Your task to perform on an android device: Search for pizza restaurants on Maps Image 0: 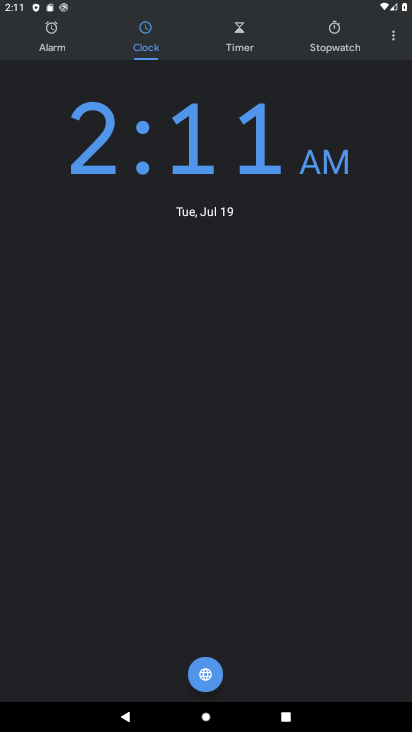
Step 0: press home button
Your task to perform on an android device: Search for pizza restaurants on Maps Image 1: 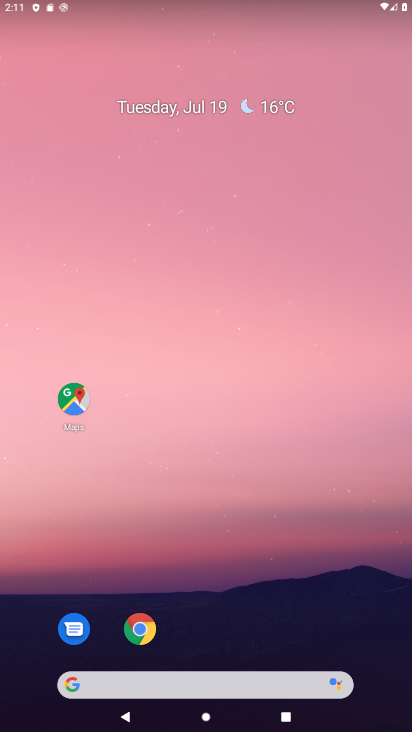
Step 1: drag from (186, 651) to (247, 293)
Your task to perform on an android device: Search for pizza restaurants on Maps Image 2: 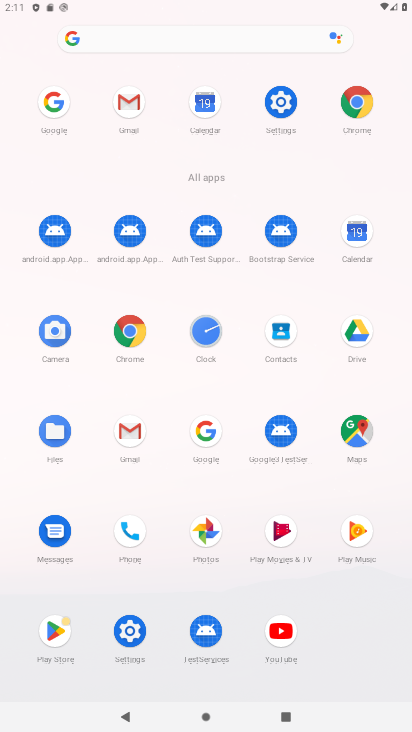
Step 2: click (348, 437)
Your task to perform on an android device: Search for pizza restaurants on Maps Image 3: 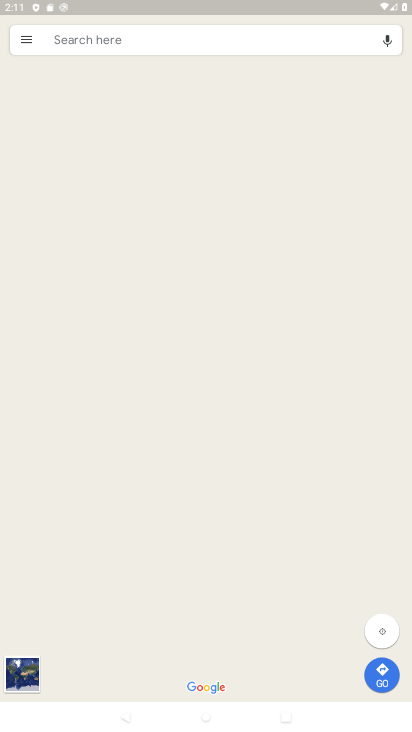
Step 3: click (193, 37)
Your task to perform on an android device: Search for pizza restaurants on Maps Image 4: 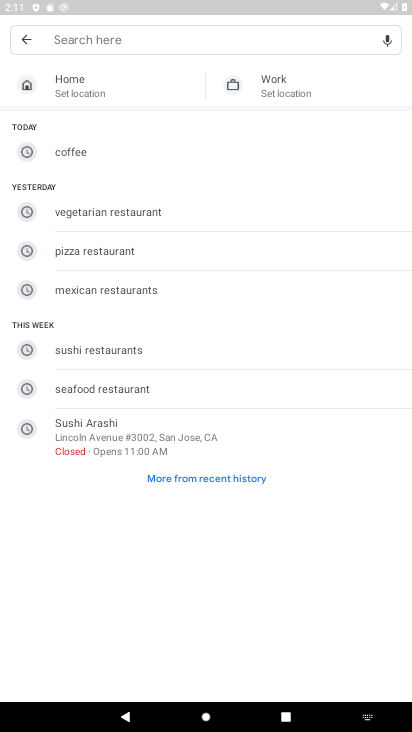
Step 4: type "pizza restaurants"
Your task to perform on an android device: Search for pizza restaurants on Maps Image 5: 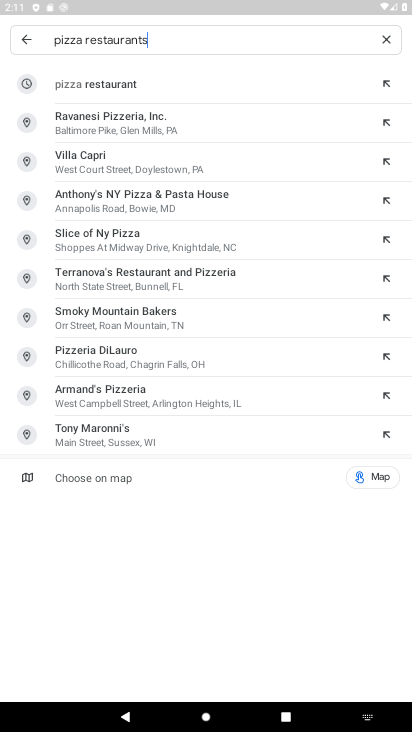
Step 5: click (197, 92)
Your task to perform on an android device: Search for pizza restaurants on Maps Image 6: 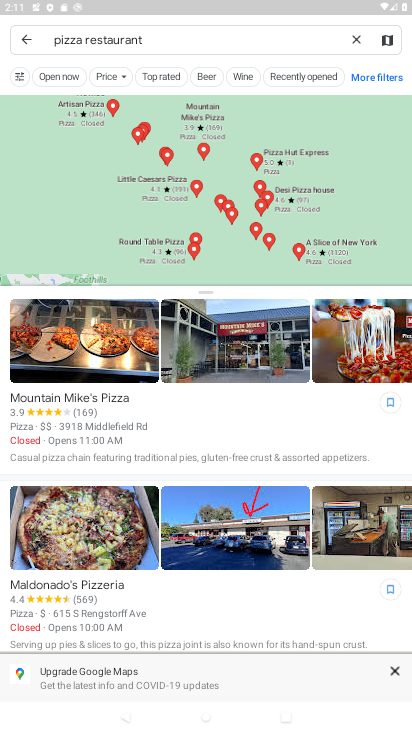
Step 6: task complete